Your task to perform on an android device: create a new album in the google photos Image 0: 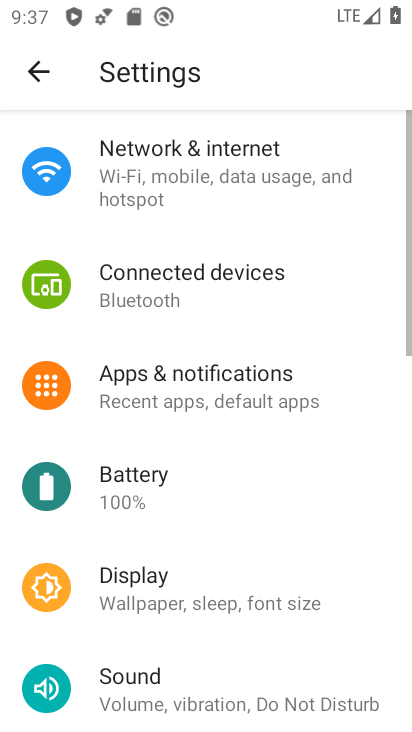
Step 0: press home button
Your task to perform on an android device: create a new album in the google photos Image 1: 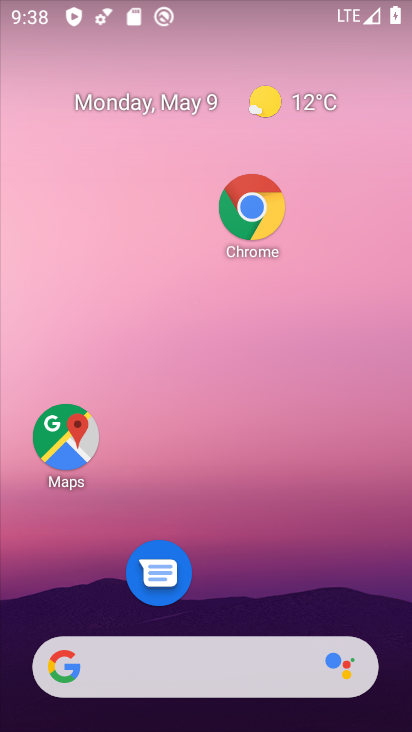
Step 1: drag from (348, 611) to (386, 53)
Your task to perform on an android device: create a new album in the google photos Image 2: 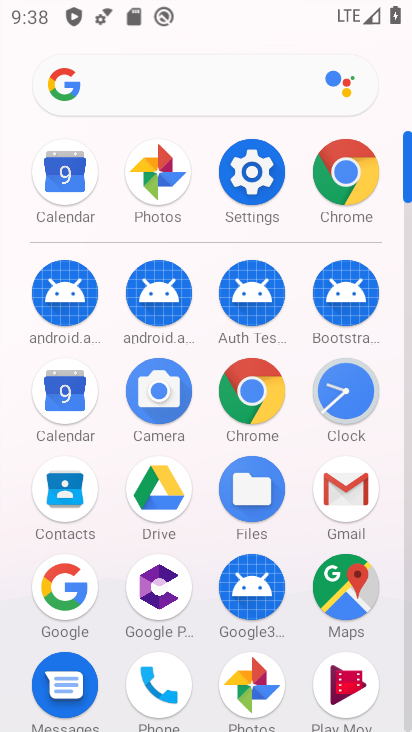
Step 2: click (262, 668)
Your task to perform on an android device: create a new album in the google photos Image 3: 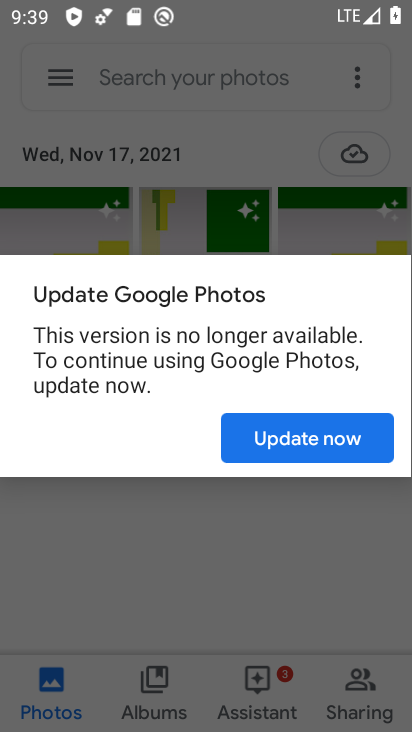
Step 3: task complete